Your task to perform on an android device: Open calendar and show me the fourth week of next month Image 0: 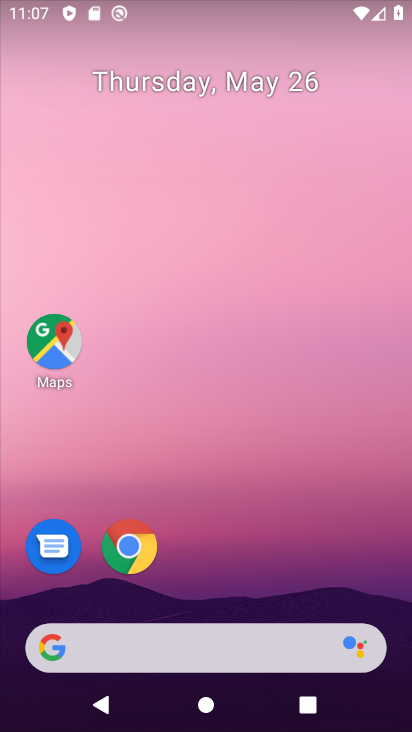
Step 0: drag from (259, 555) to (286, 145)
Your task to perform on an android device: Open calendar and show me the fourth week of next month Image 1: 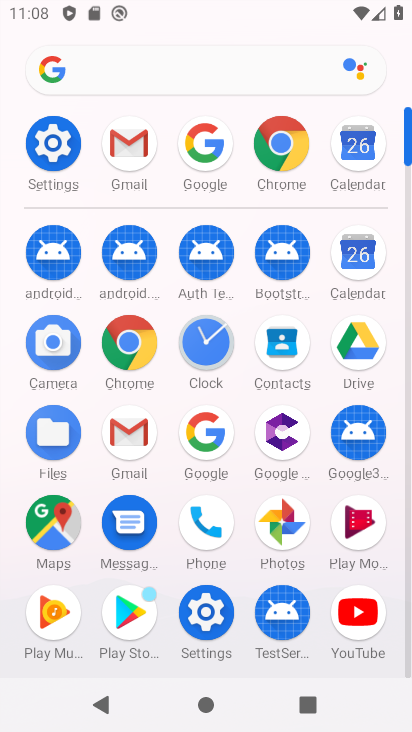
Step 1: click (354, 259)
Your task to perform on an android device: Open calendar and show me the fourth week of next month Image 2: 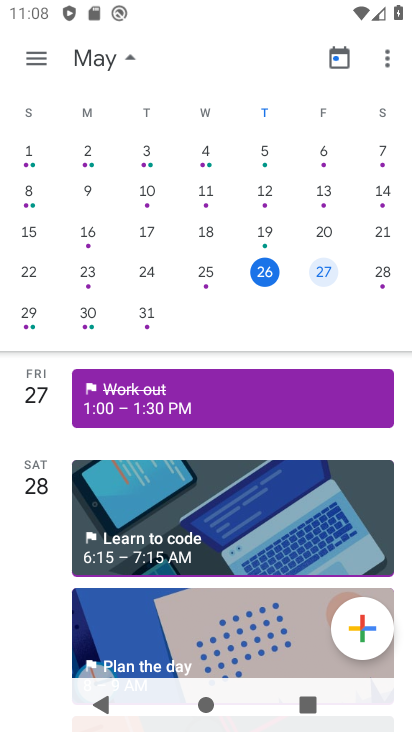
Step 2: drag from (343, 316) to (0, 275)
Your task to perform on an android device: Open calendar and show me the fourth week of next month Image 3: 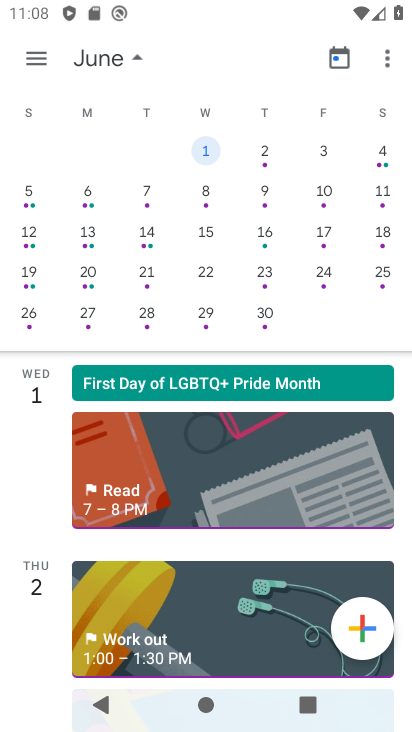
Step 3: click (206, 262)
Your task to perform on an android device: Open calendar and show me the fourth week of next month Image 4: 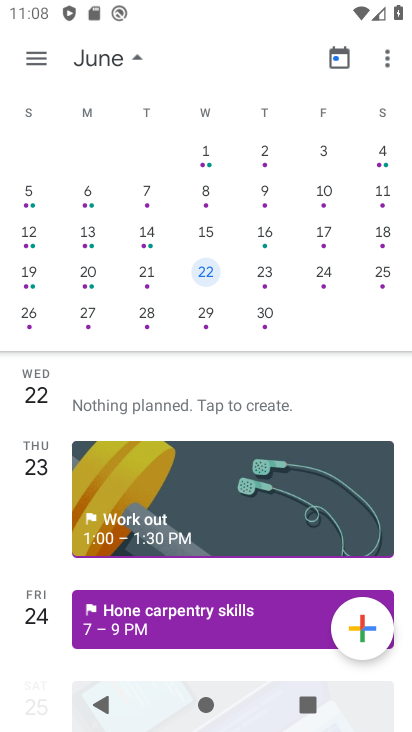
Step 4: task complete